Your task to perform on an android device: Turn off the flashlight Image 0: 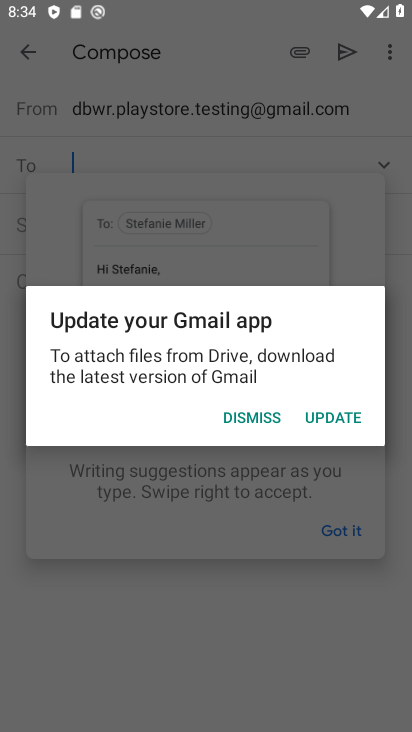
Step 0: drag from (302, 10) to (236, 664)
Your task to perform on an android device: Turn off the flashlight Image 1: 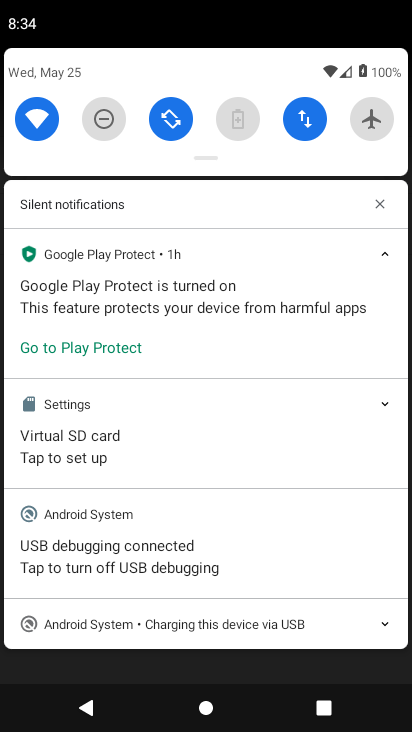
Step 1: task complete